Your task to perform on an android device: open app "Adobe Acrobat Reader: Edit PDF" (install if not already installed) and go to login screen Image 0: 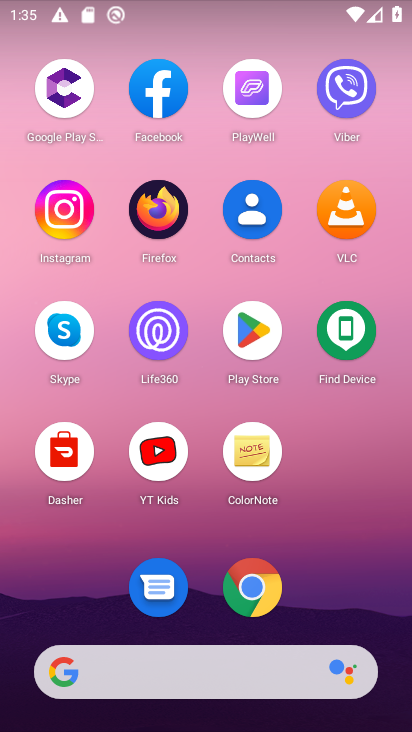
Step 0: press home button
Your task to perform on an android device: open app "Adobe Acrobat Reader: Edit PDF" (install if not already installed) and go to login screen Image 1: 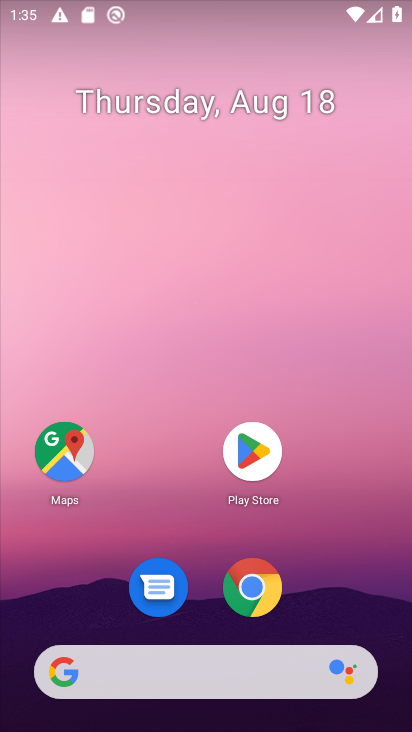
Step 1: click (249, 451)
Your task to perform on an android device: open app "Adobe Acrobat Reader: Edit PDF" (install if not already installed) and go to login screen Image 2: 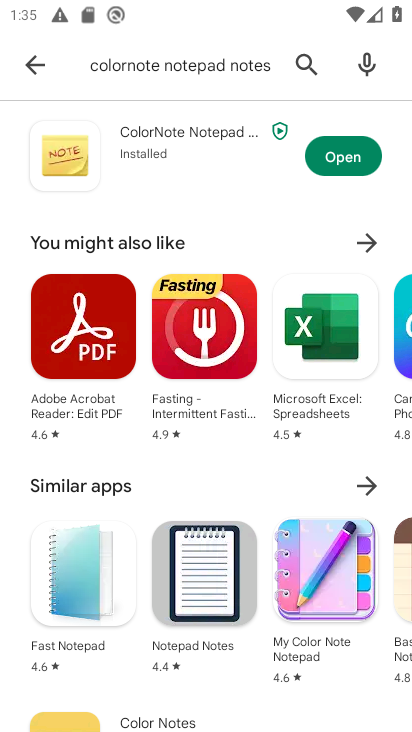
Step 2: click (295, 56)
Your task to perform on an android device: open app "Adobe Acrobat Reader: Edit PDF" (install if not already installed) and go to login screen Image 3: 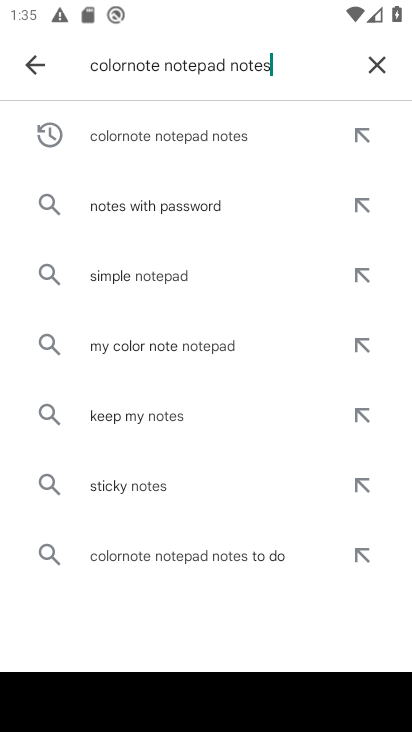
Step 3: click (377, 47)
Your task to perform on an android device: open app "Adobe Acrobat Reader: Edit PDF" (install if not already installed) and go to login screen Image 4: 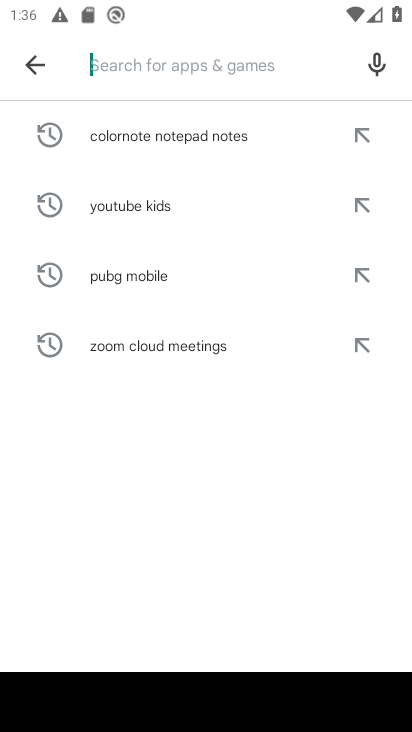
Step 4: type "Adobe Acrobat Reader: Edit PDF"
Your task to perform on an android device: open app "Adobe Acrobat Reader: Edit PDF" (install if not already installed) and go to login screen Image 5: 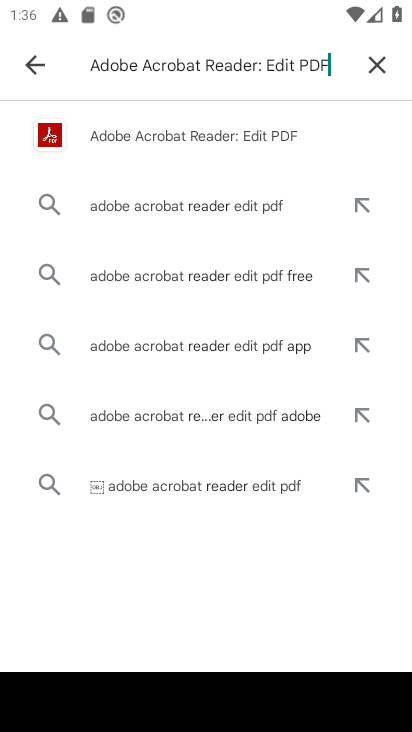
Step 5: click (212, 130)
Your task to perform on an android device: open app "Adobe Acrobat Reader: Edit PDF" (install if not already installed) and go to login screen Image 6: 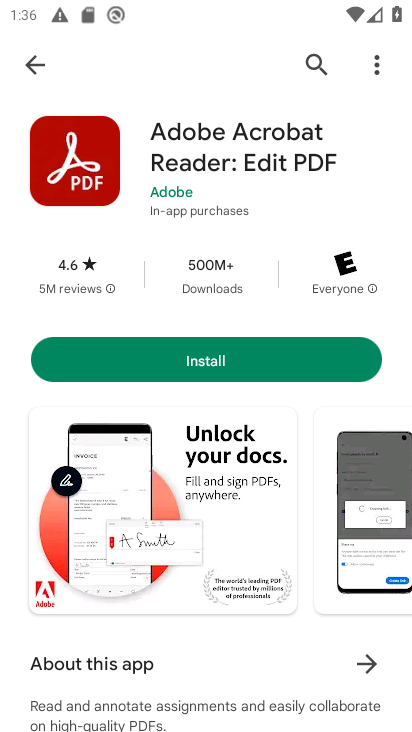
Step 6: click (206, 364)
Your task to perform on an android device: open app "Adobe Acrobat Reader: Edit PDF" (install if not already installed) and go to login screen Image 7: 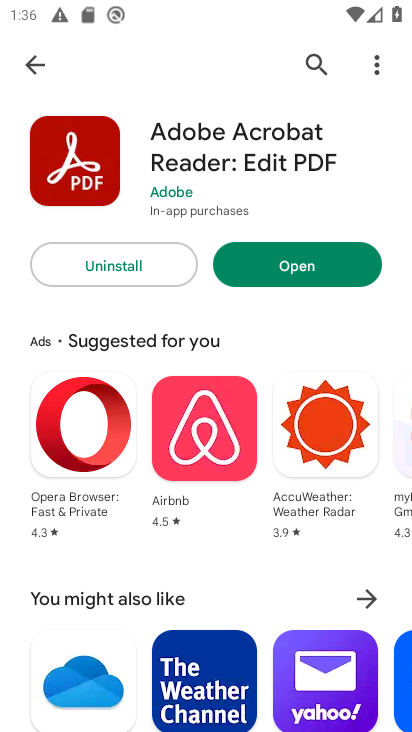
Step 7: click (325, 269)
Your task to perform on an android device: open app "Adobe Acrobat Reader: Edit PDF" (install if not already installed) and go to login screen Image 8: 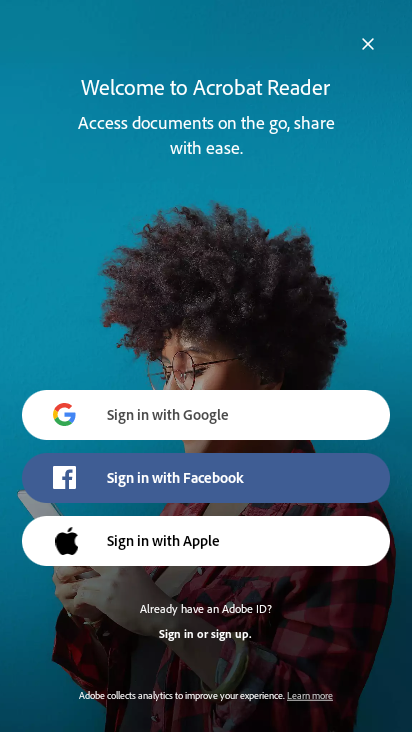
Step 8: task complete